Your task to perform on an android device: open app "NewsBreak: Local News & Alerts" Image 0: 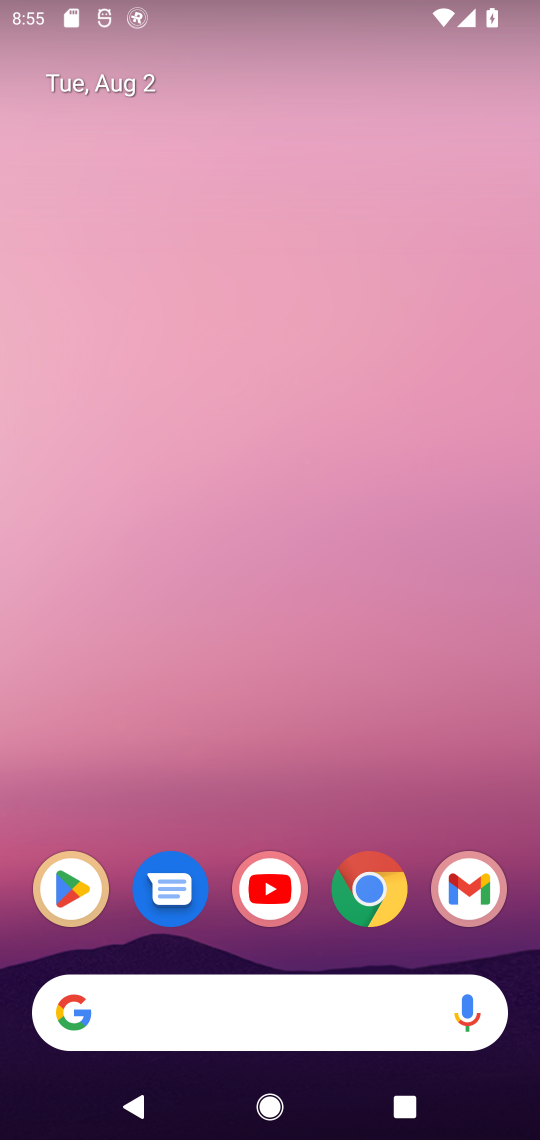
Step 0: press home button
Your task to perform on an android device: open app "NewsBreak: Local News & Alerts" Image 1: 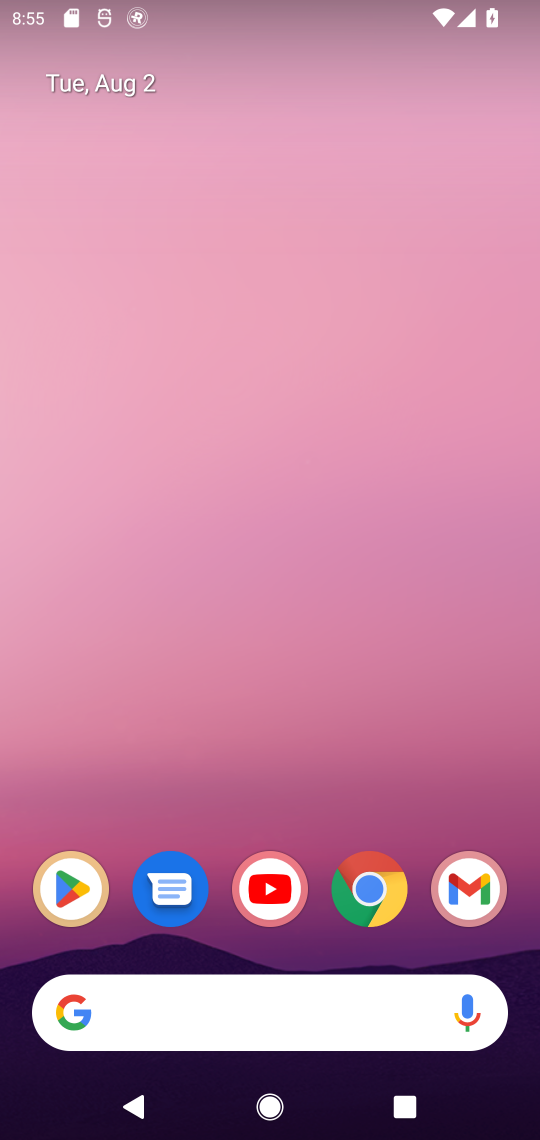
Step 1: click (81, 889)
Your task to perform on an android device: open app "NewsBreak: Local News & Alerts" Image 2: 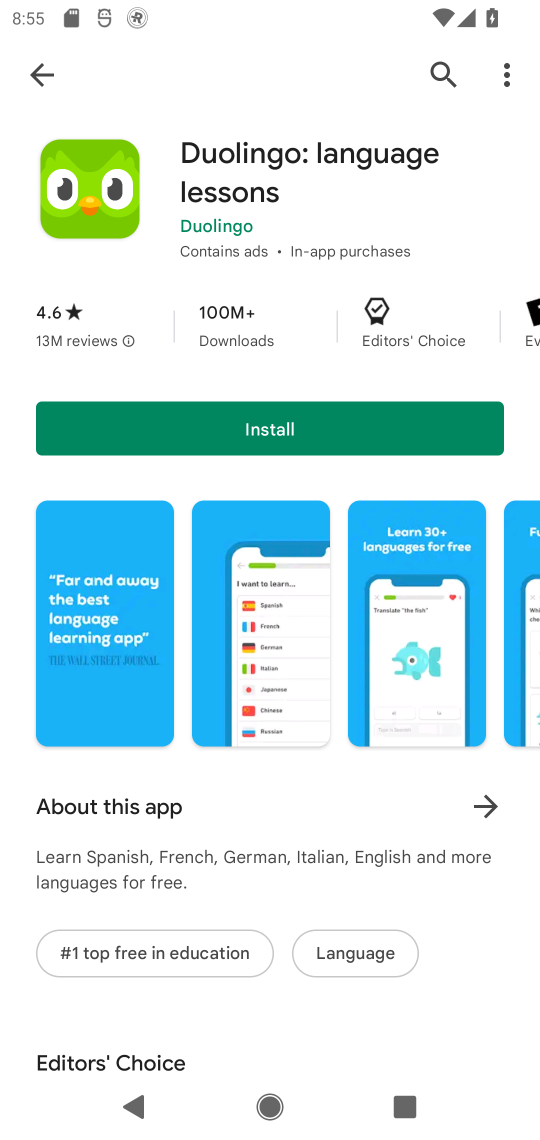
Step 2: click (430, 74)
Your task to perform on an android device: open app "NewsBreak: Local News & Alerts" Image 3: 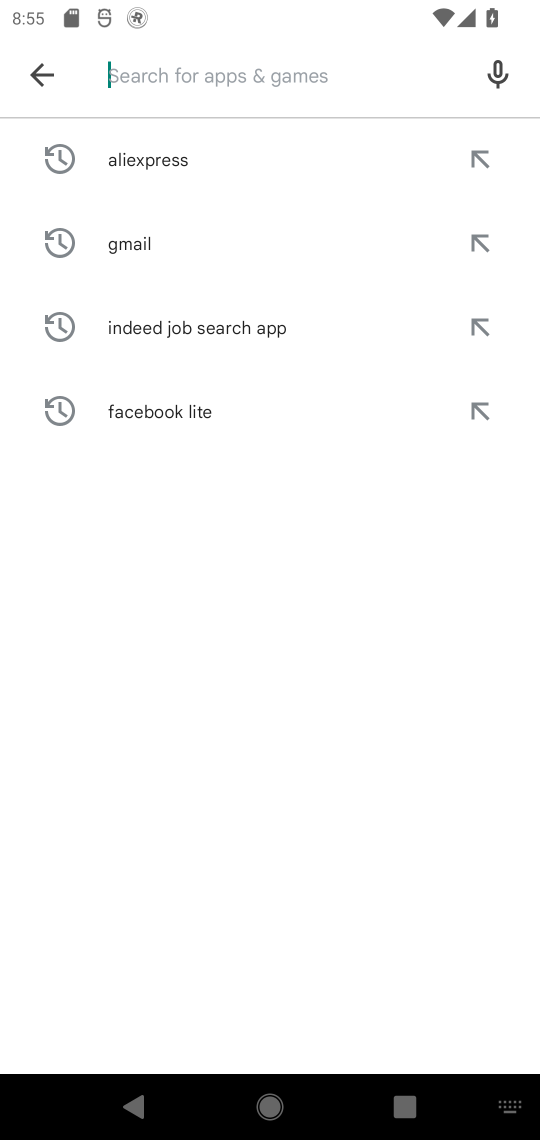
Step 3: type "NewsBreak: Local News & Alerts"
Your task to perform on an android device: open app "NewsBreak: Local News & Alerts" Image 4: 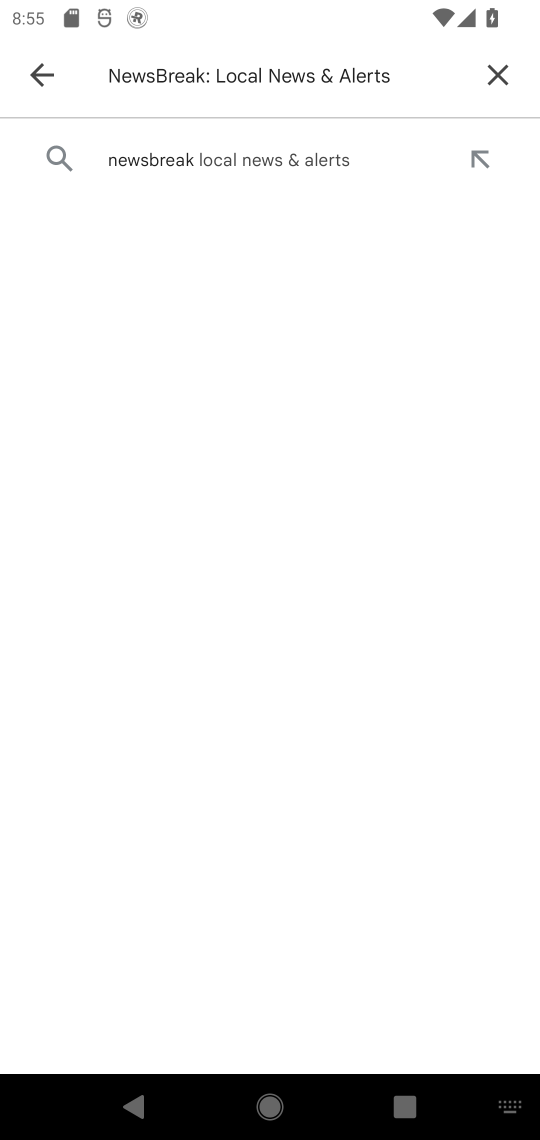
Step 4: click (210, 152)
Your task to perform on an android device: open app "NewsBreak: Local News & Alerts" Image 5: 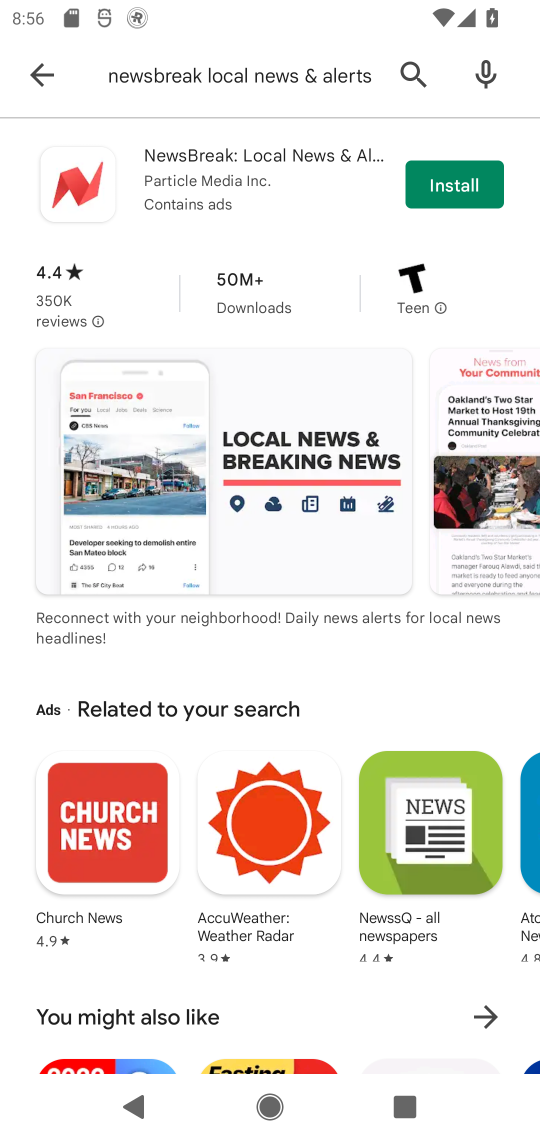
Step 5: task complete